Your task to perform on an android device: change the clock style Image 0: 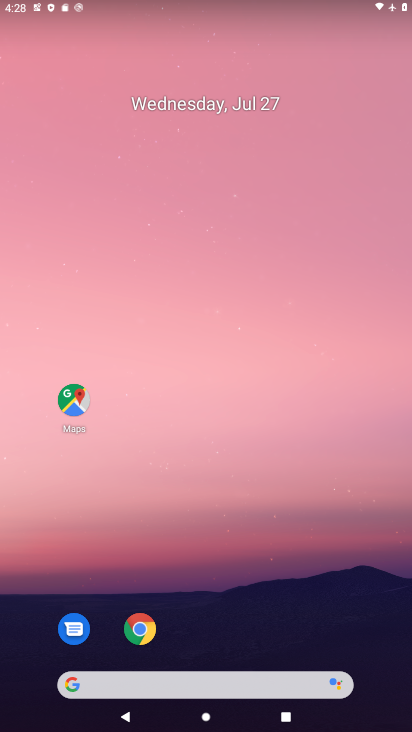
Step 0: drag from (193, 654) to (161, 192)
Your task to perform on an android device: change the clock style Image 1: 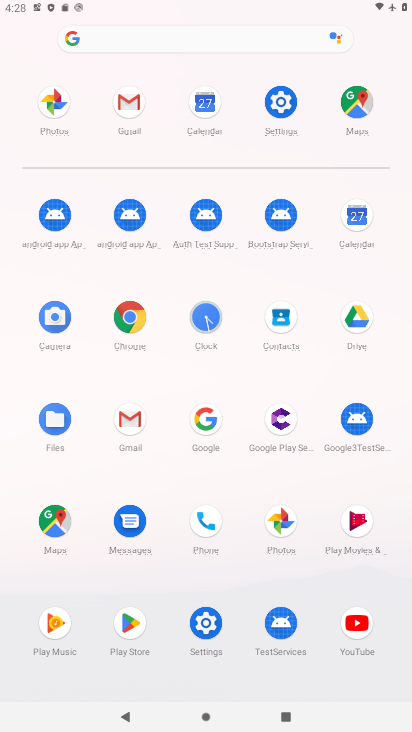
Step 1: click (214, 325)
Your task to perform on an android device: change the clock style Image 2: 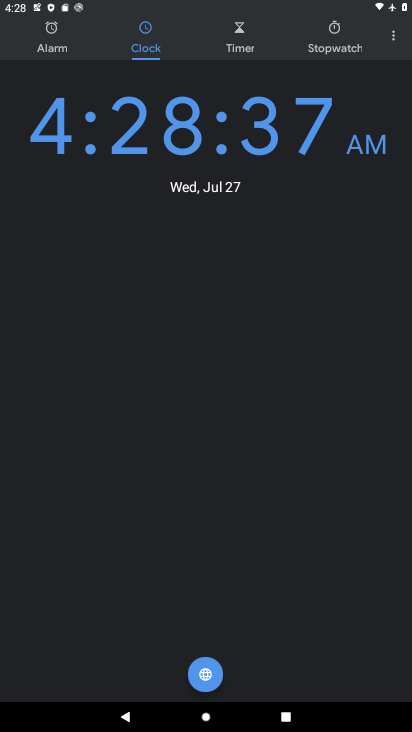
Step 2: click (392, 37)
Your task to perform on an android device: change the clock style Image 3: 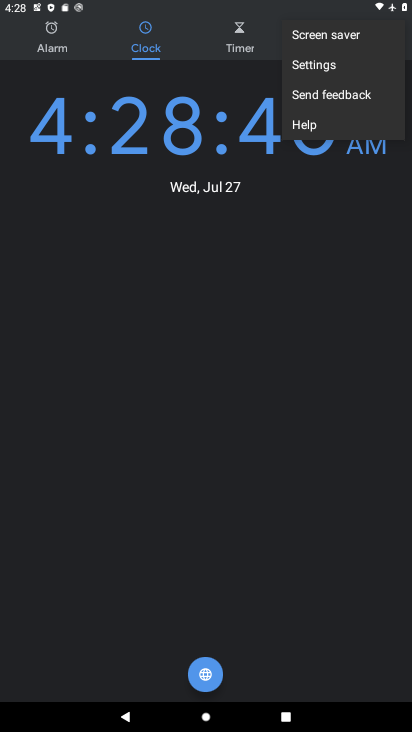
Step 3: click (321, 59)
Your task to perform on an android device: change the clock style Image 4: 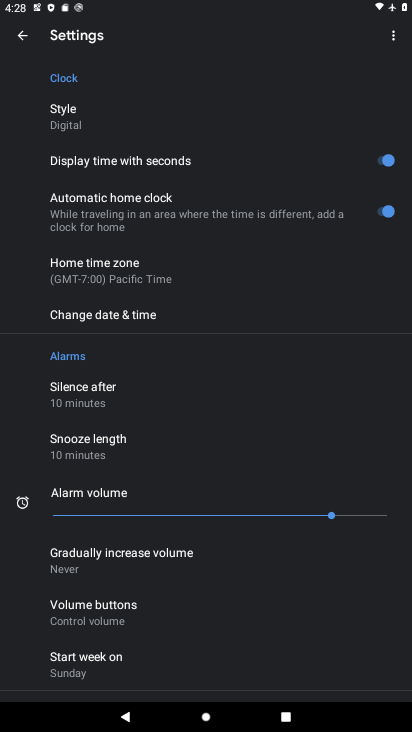
Step 4: click (77, 110)
Your task to perform on an android device: change the clock style Image 5: 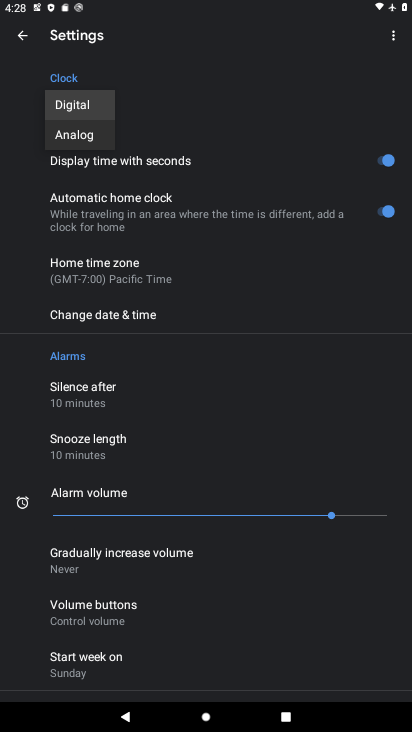
Step 5: click (90, 142)
Your task to perform on an android device: change the clock style Image 6: 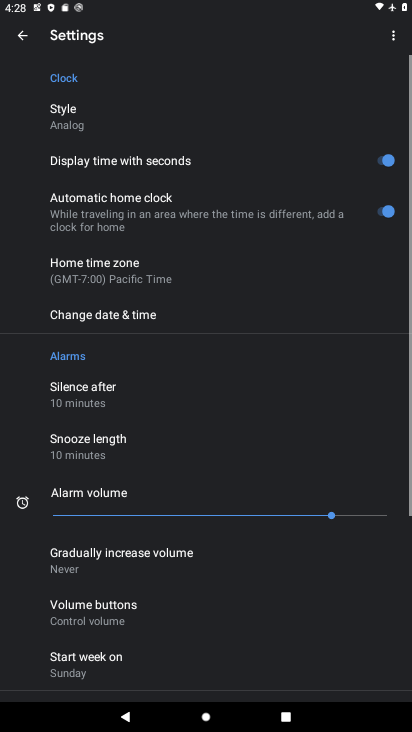
Step 6: task complete